Your task to perform on an android device: turn off location history Image 0: 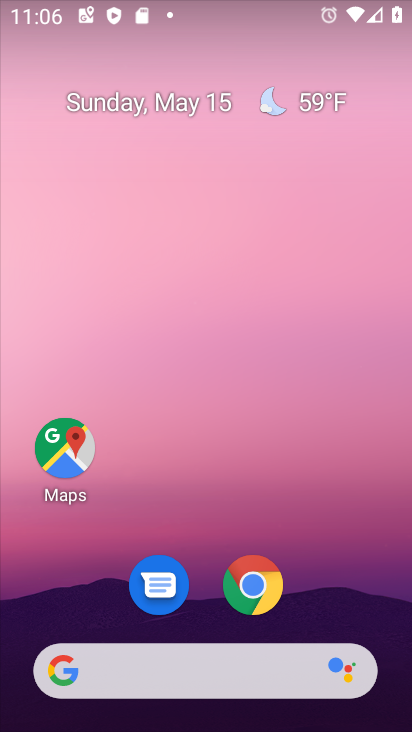
Step 0: drag from (240, 404) to (253, 12)
Your task to perform on an android device: turn off location history Image 1: 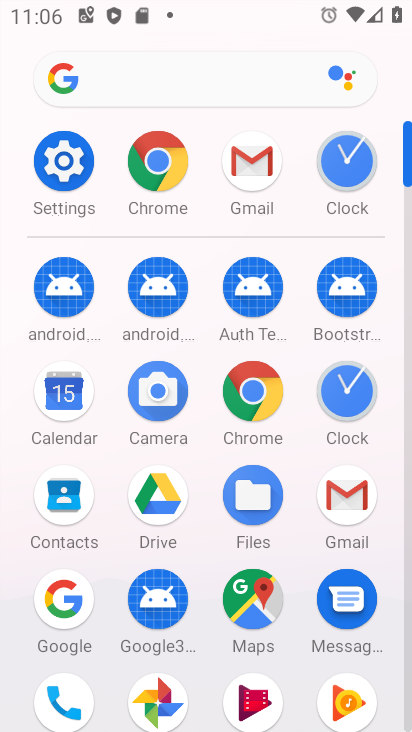
Step 1: click (70, 157)
Your task to perform on an android device: turn off location history Image 2: 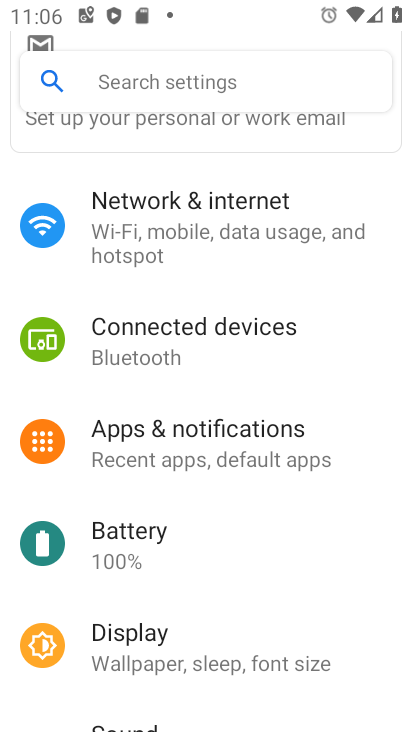
Step 2: drag from (206, 590) to (237, 91)
Your task to perform on an android device: turn off location history Image 3: 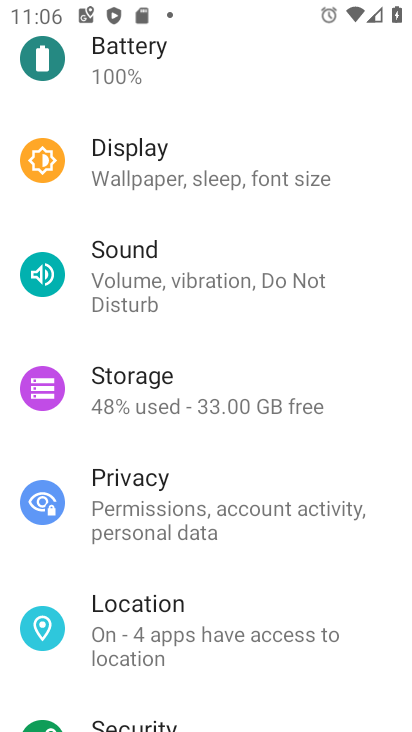
Step 3: click (229, 618)
Your task to perform on an android device: turn off location history Image 4: 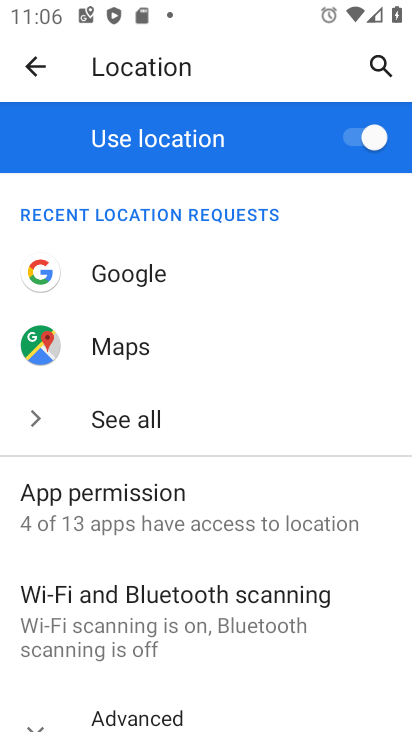
Step 4: drag from (252, 549) to (282, 149)
Your task to perform on an android device: turn off location history Image 5: 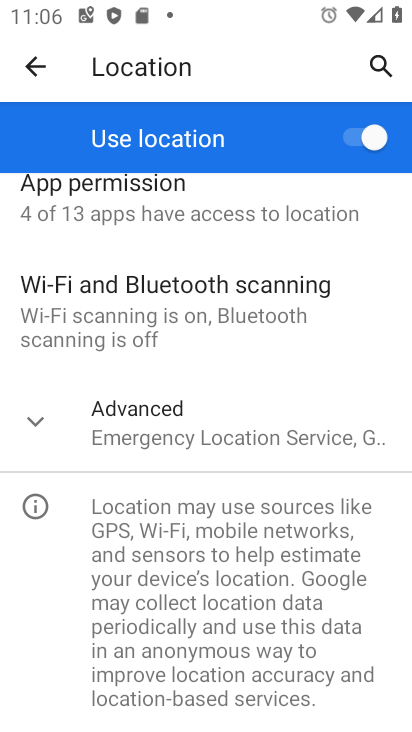
Step 5: click (24, 402)
Your task to perform on an android device: turn off location history Image 6: 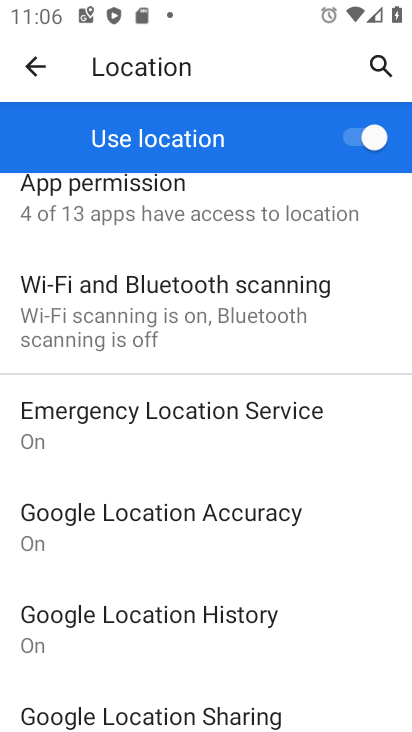
Step 6: click (263, 626)
Your task to perform on an android device: turn off location history Image 7: 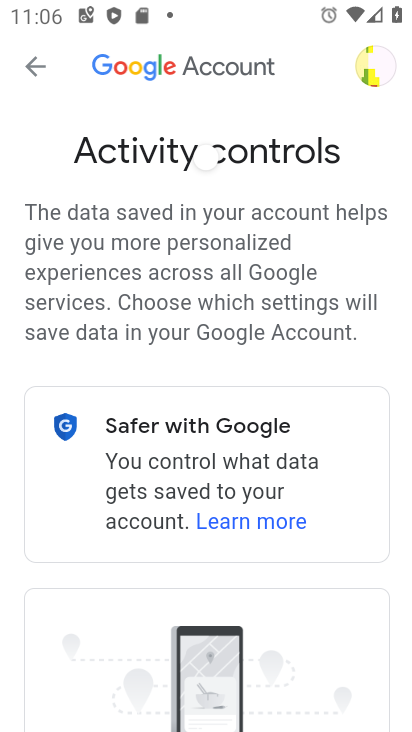
Step 7: task complete